Your task to perform on an android device: Go to Yahoo.com Image 0: 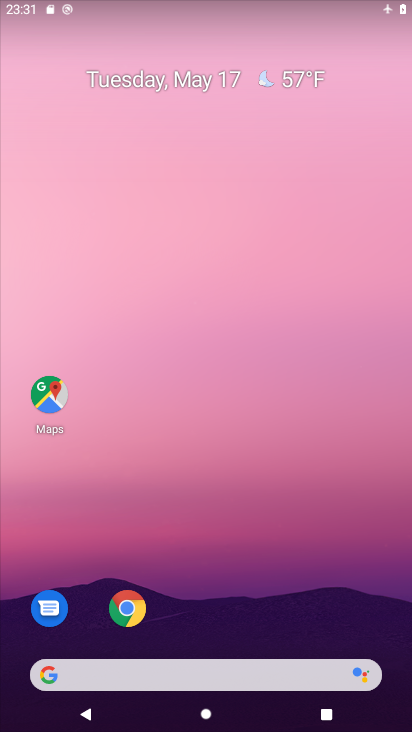
Step 0: click (131, 607)
Your task to perform on an android device: Go to Yahoo.com Image 1: 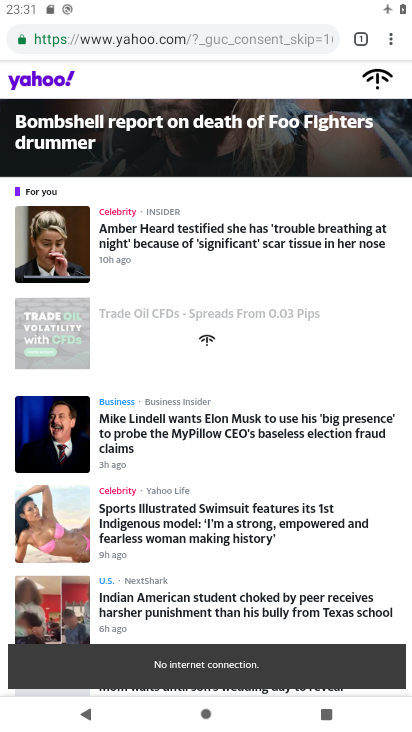
Step 1: click (221, 30)
Your task to perform on an android device: Go to Yahoo.com Image 2: 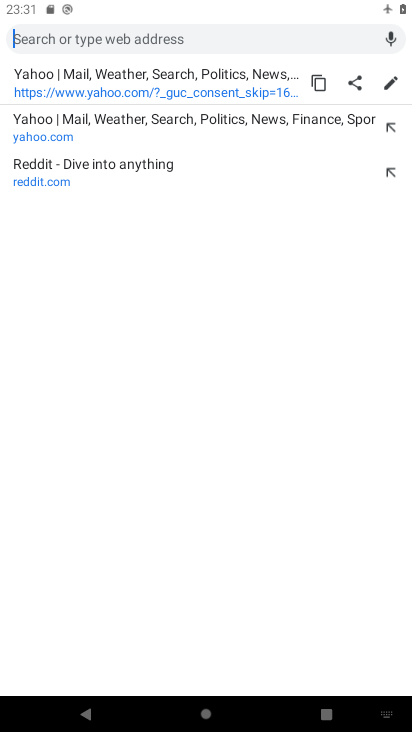
Step 2: type "yahoo.com"
Your task to perform on an android device: Go to Yahoo.com Image 3: 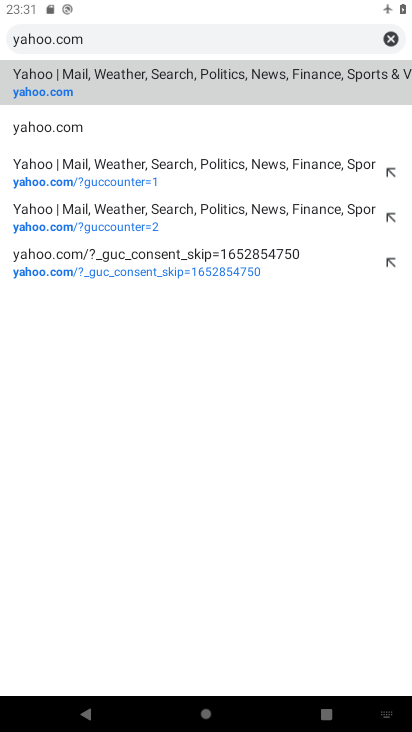
Step 3: click (75, 86)
Your task to perform on an android device: Go to Yahoo.com Image 4: 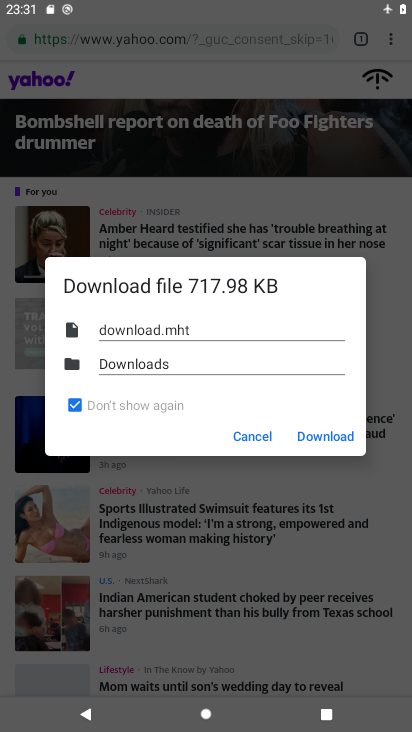
Step 4: click (241, 436)
Your task to perform on an android device: Go to Yahoo.com Image 5: 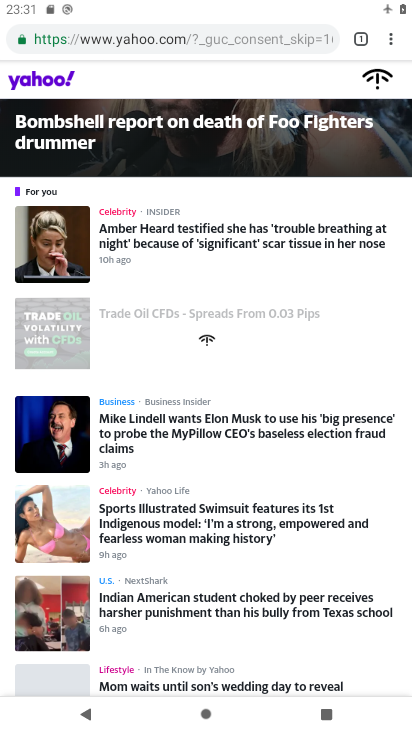
Step 5: task complete